Your task to perform on an android device: all mails in gmail Image 0: 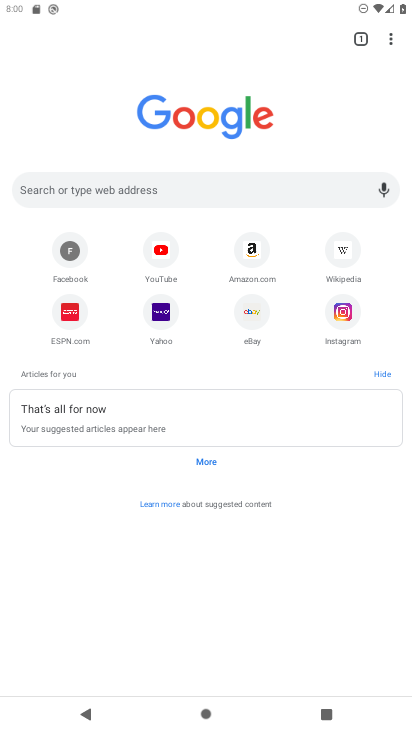
Step 0: press home button
Your task to perform on an android device: all mails in gmail Image 1: 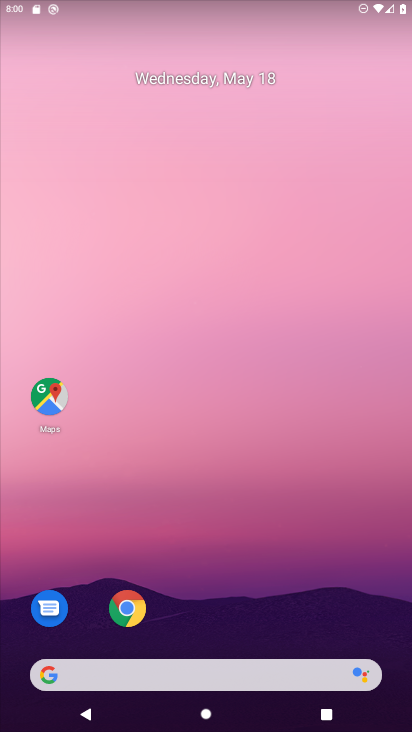
Step 1: drag from (275, 622) to (272, 94)
Your task to perform on an android device: all mails in gmail Image 2: 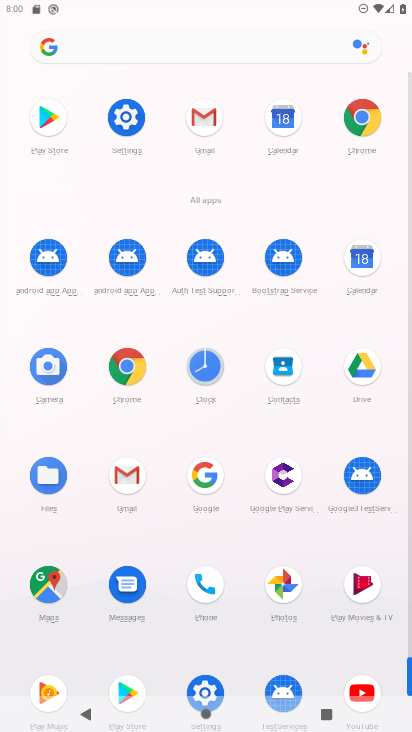
Step 2: click (120, 479)
Your task to perform on an android device: all mails in gmail Image 3: 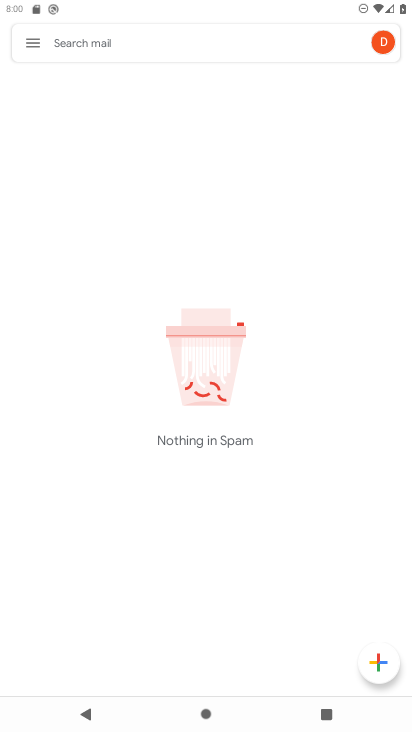
Step 3: click (27, 50)
Your task to perform on an android device: all mails in gmail Image 4: 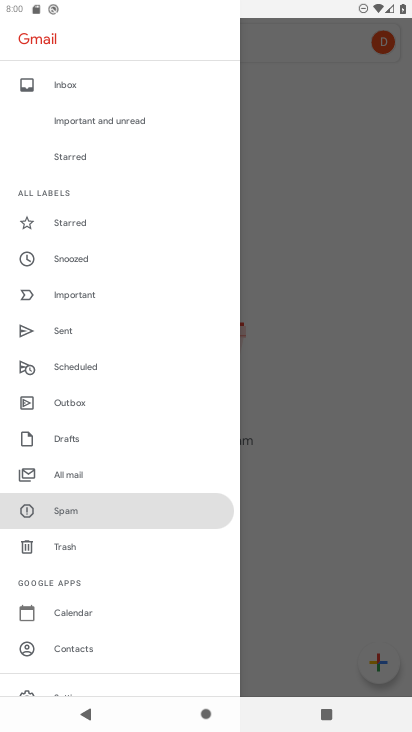
Step 4: click (82, 465)
Your task to perform on an android device: all mails in gmail Image 5: 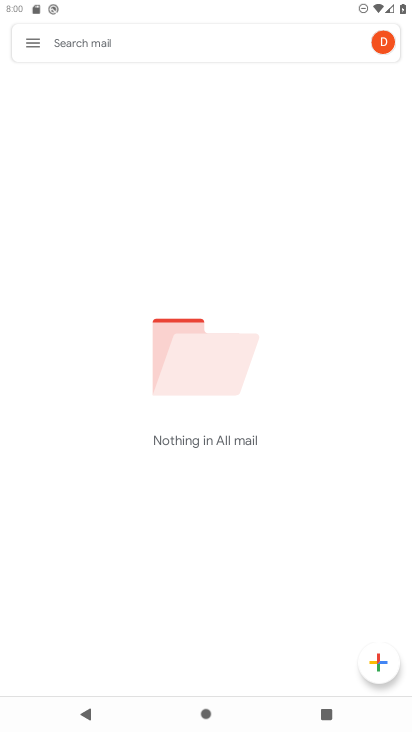
Step 5: task complete